Your task to perform on an android device: turn on priority inbox in the gmail app Image 0: 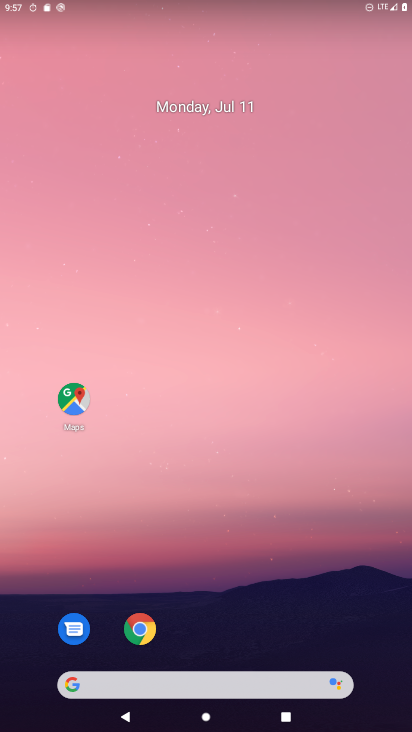
Step 0: drag from (210, 627) to (257, 51)
Your task to perform on an android device: turn on priority inbox in the gmail app Image 1: 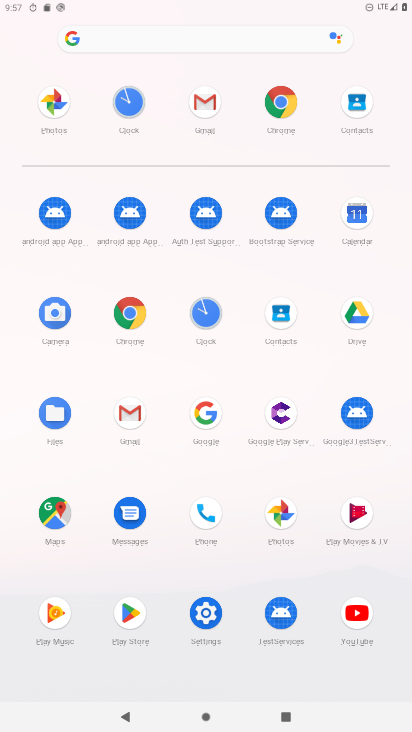
Step 1: click (199, 98)
Your task to perform on an android device: turn on priority inbox in the gmail app Image 2: 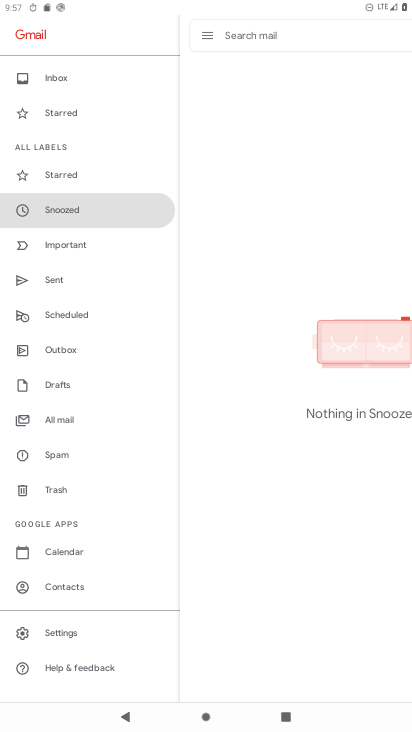
Step 2: click (94, 635)
Your task to perform on an android device: turn on priority inbox in the gmail app Image 3: 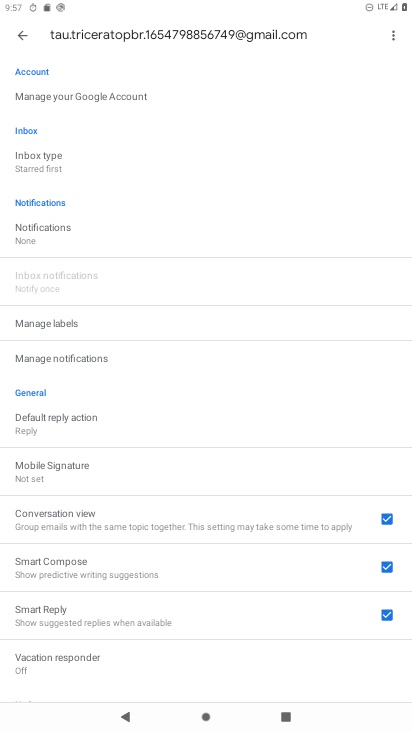
Step 3: click (116, 166)
Your task to perform on an android device: turn on priority inbox in the gmail app Image 4: 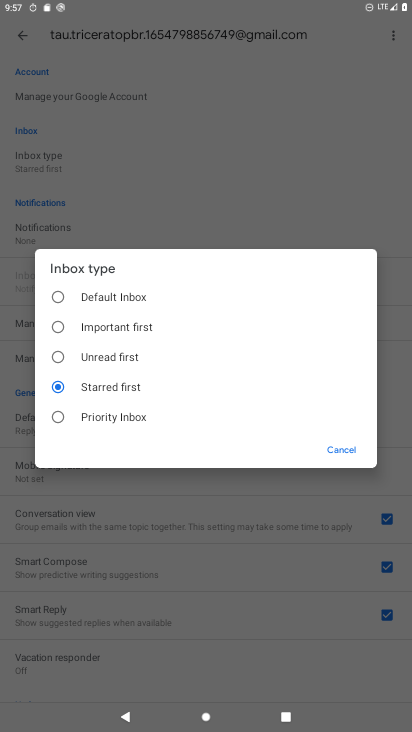
Step 4: click (157, 413)
Your task to perform on an android device: turn on priority inbox in the gmail app Image 5: 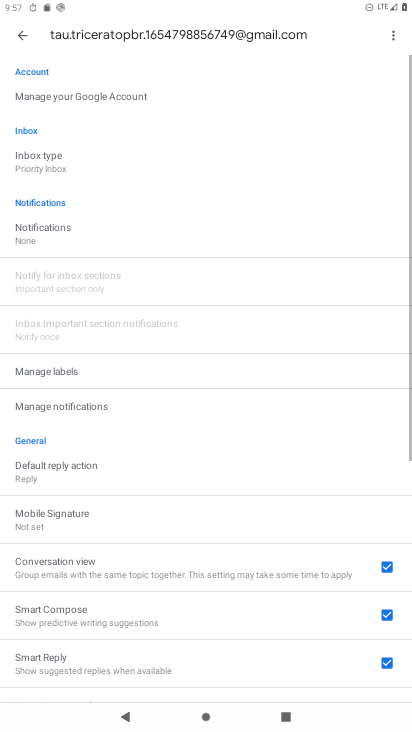
Step 5: task complete